Your task to perform on an android device: turn on priority inbox in the gmail app Image 0: 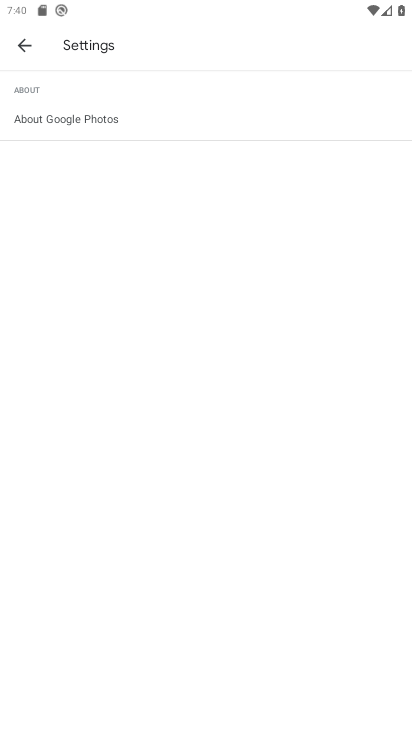
Step 0: press home button
Your task to perform on an android device: turn on priority inbox in the gmail app Image 1: 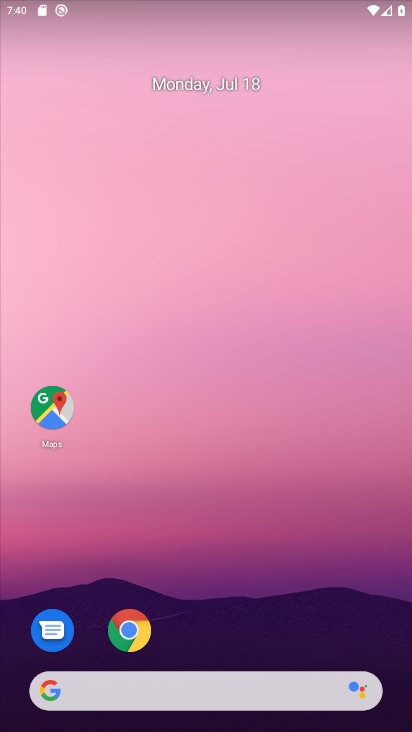
Step 1: drag from (159, 679) to (179, 304)
Your task to perform on an android device: turn on priority inbox in the gmail app Image 2: 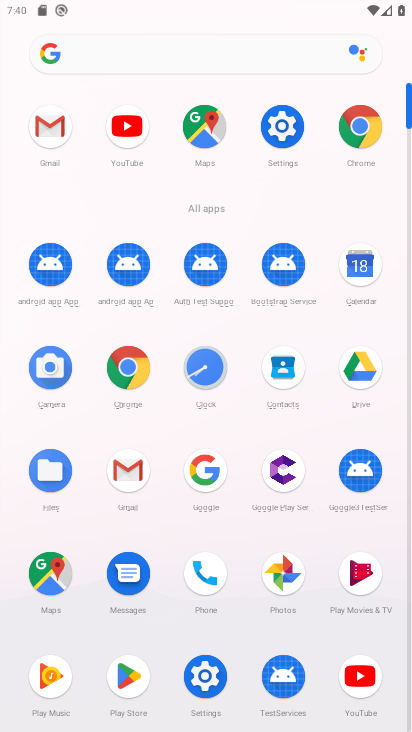
Step 2: click (47, 139)
Your task to perform on an android device: turn on priority inbox in the gmail app Image 3: 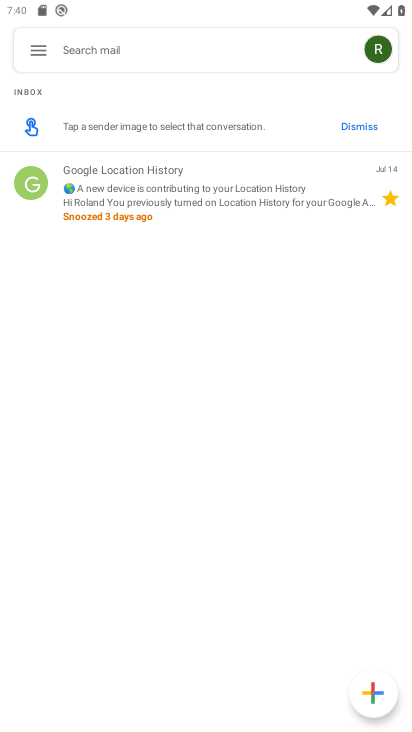
Step 3: click (43, 48)
Your task to perform on an android device: turn on priority inbox in the gmail app Image 4: 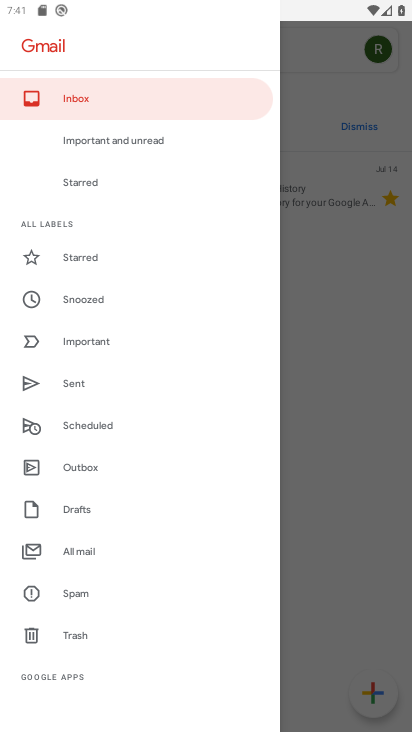
Step 4: drag from (115, 654) to (138, 322)
Your task to perform on an android device: turn on priority inbox in the gmail app Image 5: 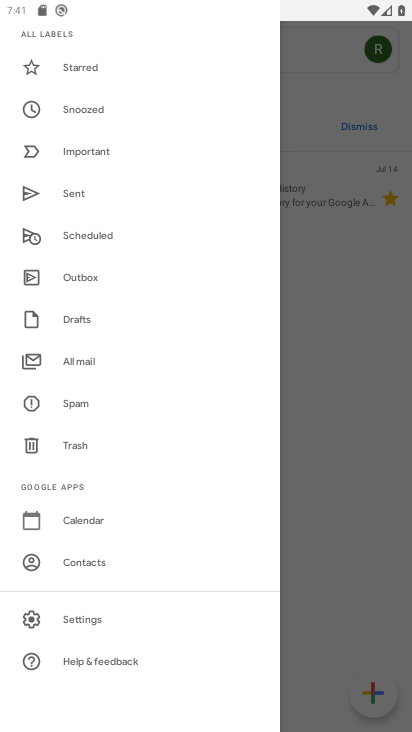
Step 5: click (96, 621)
Your task to perform on an android device: turn on priority inbox in the gmail app Image 6: 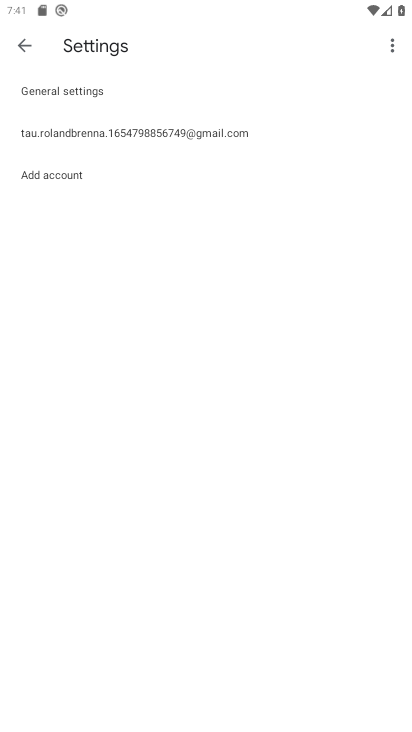
Step 6: click (61, 124)
Your task to perform on an android device: turn on priority inbox in the gmail app Image 7: 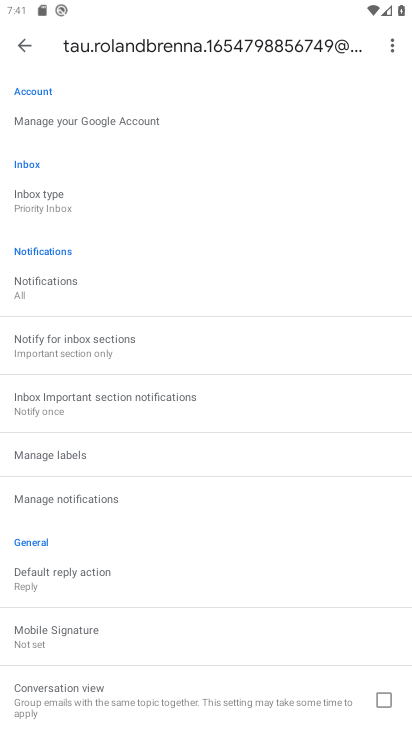
Step 7: click (66, 211)
Your task to perform on an android device: turn on priority inbox in the gmail app Image 8: 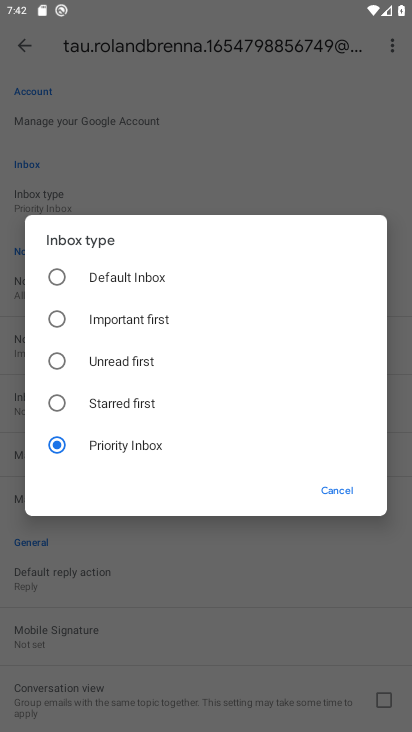
Step 8: task complete